Your task to perform on an android device: open app "Pluto TV - Live TV and Movies" (install if not already installed) and go to login screen Image 0: 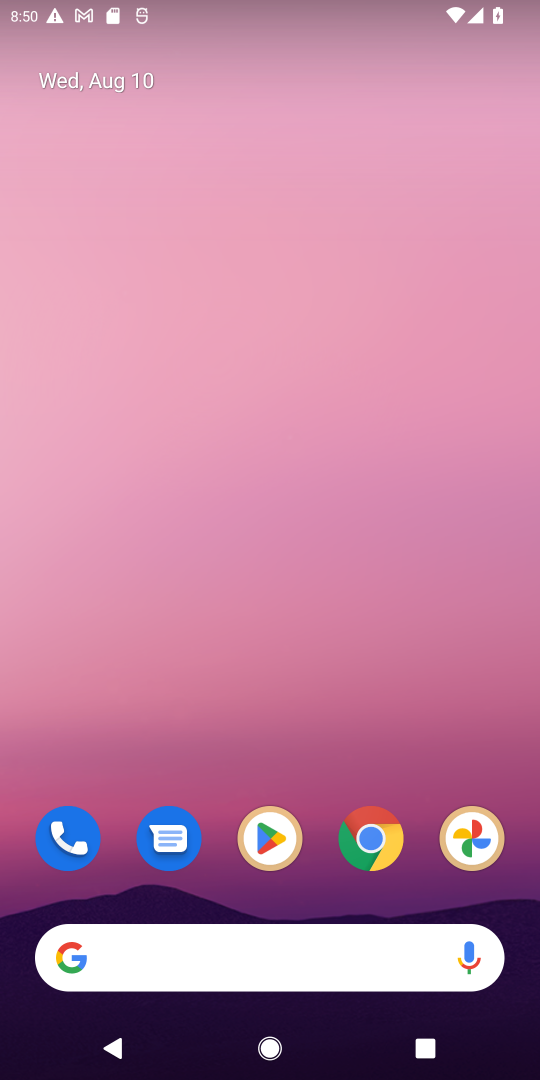
Step 0: press home button
Your task to perform on an android device: open app "Pluto TV - Live TV and Movies" (install if not already installed) and go to login screen Image 1: 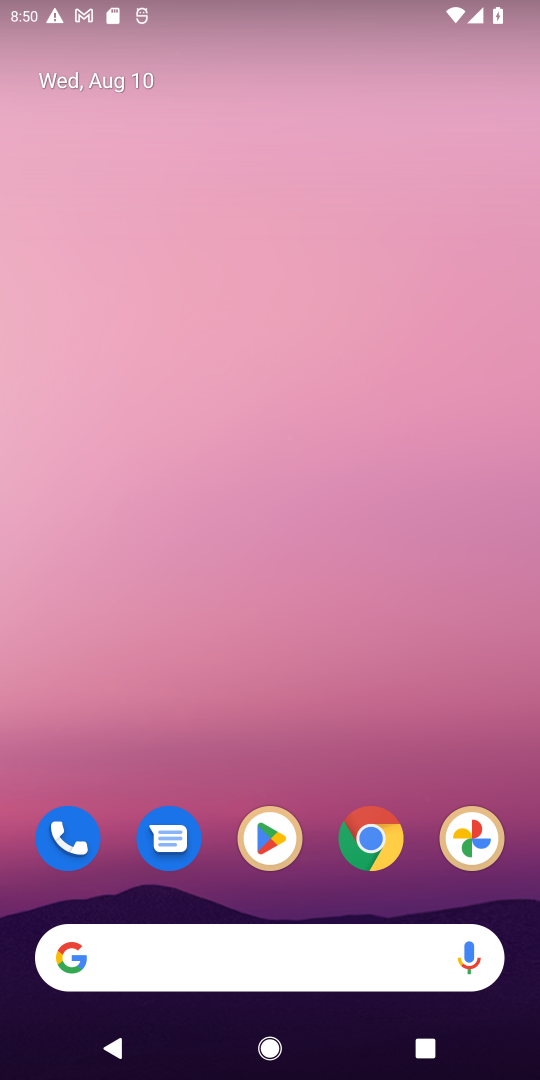
Step 1: click (266, 833)
Your task to perform on an android device: open app "Pluto TV - Live TV and Movies" (install if not already installed) and go to login screen Image 2: 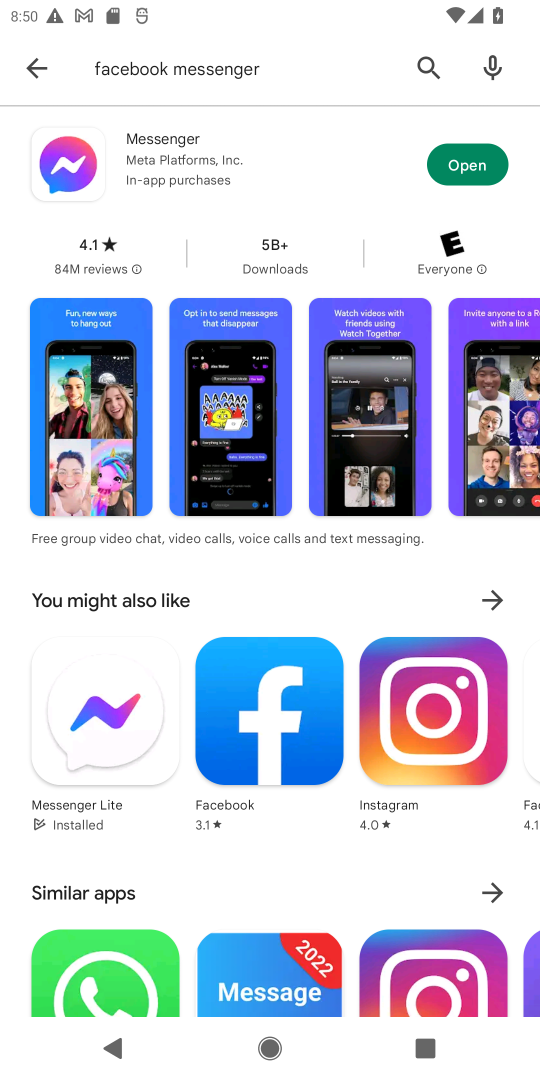
Step 2: click (423, 67)
Your task to perform on an android device: open app "Pluto TV - Live TV and Movies" (install if not already installed) and go to login screen Image 3: 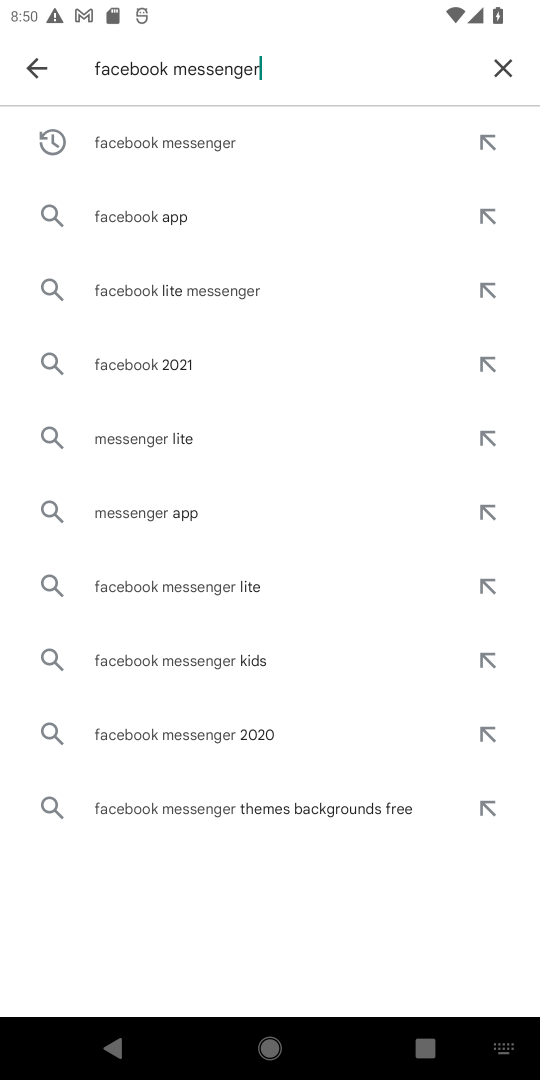
Step 3: click (504, 66)
Your task to perform on an android device: open app "Pluto TV - Live TV and Movies" (install if not already installed) and go to login screen Image 4: 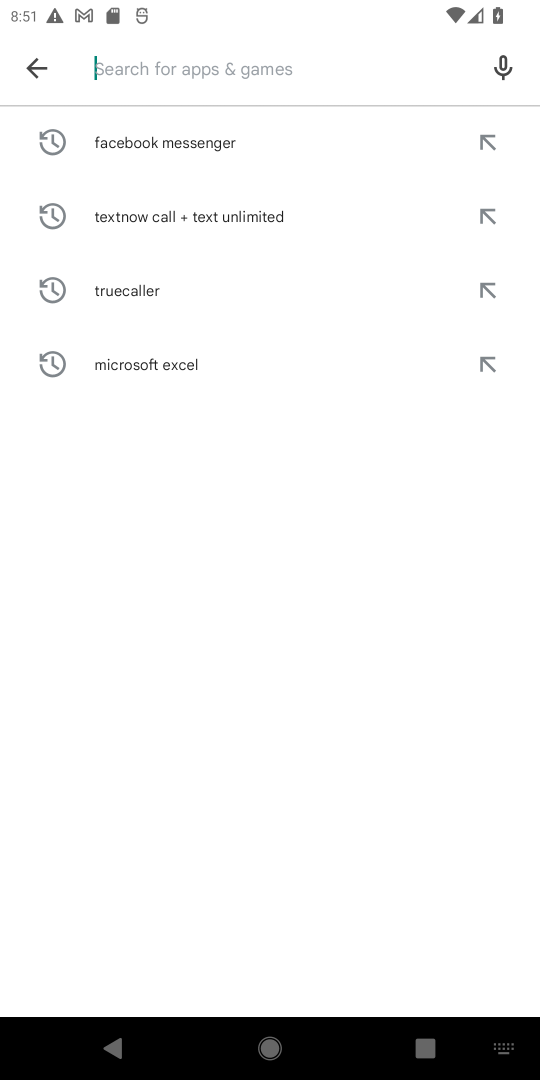
Step 4: type "Pluto TV - Live TV and Movies"
Your task to perform on an android device: open app "Pluto TV - Live TV and Movies" (install if not already installed) and go to login screen Image 5: 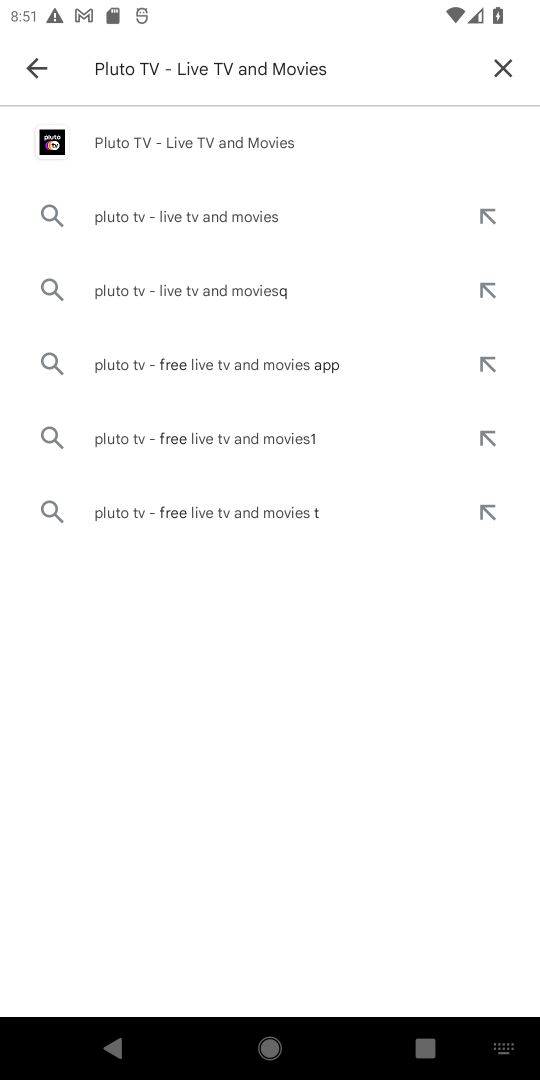
Step 5: click (185, 137)
Your task to perform on an android device: open app "Pluto TV - Live TV and Movies" (install if not already installed) and go to login screen Image 6: 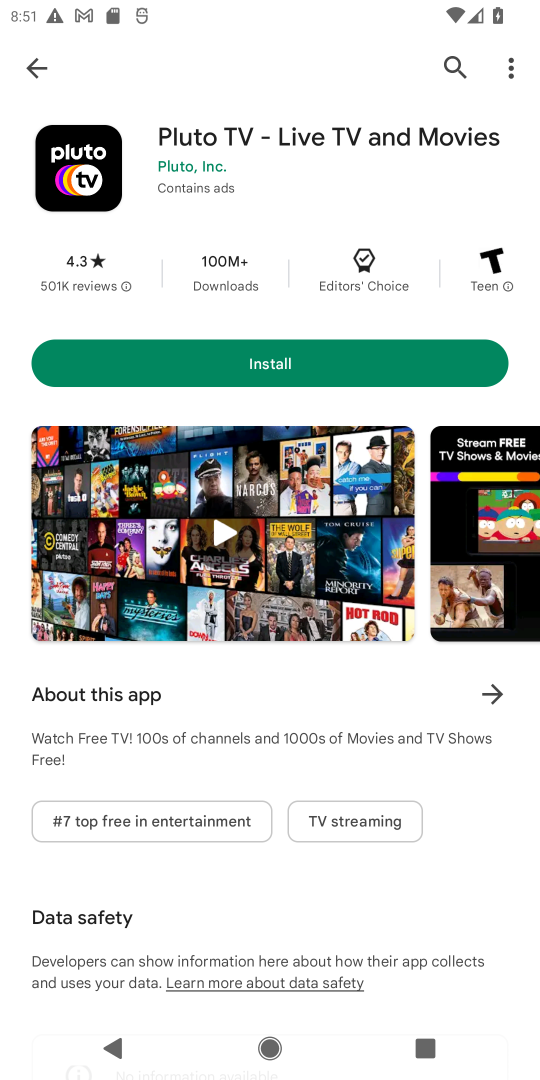
Step 6: click (273, 360)
Your task to perform on an android device: open app "Pluto TV - Live TV and Movies" (install if not already installed) and go to login screen Image 7: 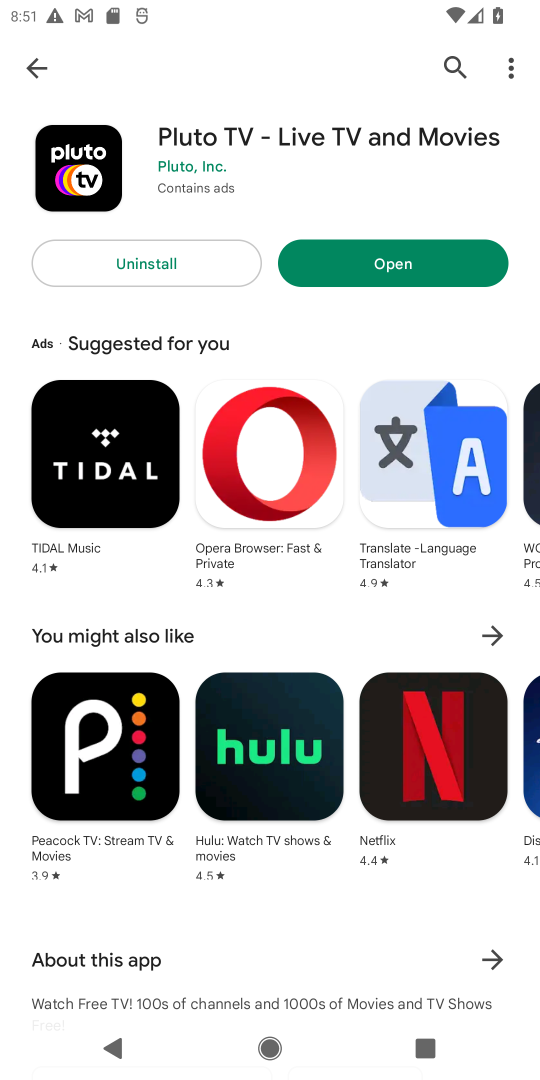
Step 7: click (404, 262)
Your task to perform on an android device: open app "Pluto TV - Live TV and Movies" (install if not already installed) and go to login screen Image 8: 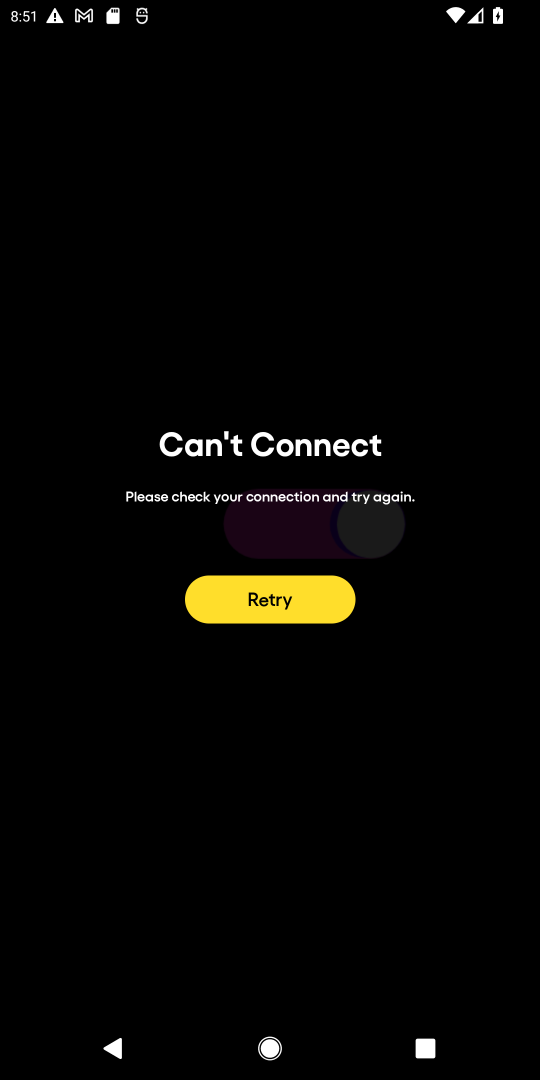
Step 8: click (290, 610)
Your task to perform on an android device: open app "Pluto TV - Live TV and Movies" (install if not already installed) and go to login screen Image 9: 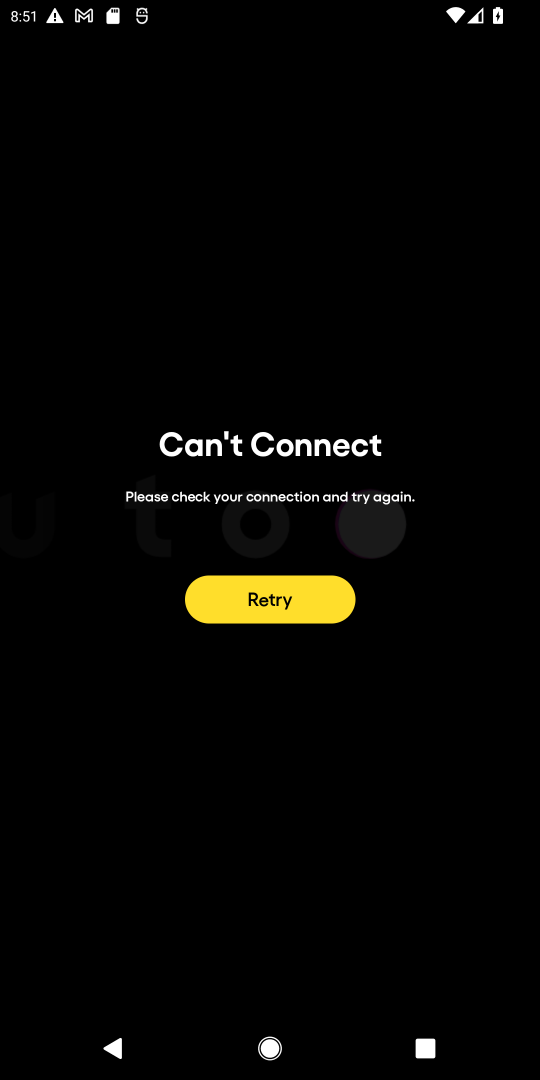
Step 9: task complete